Your task to perform on an android device: Go to Wikipedia Image 0: 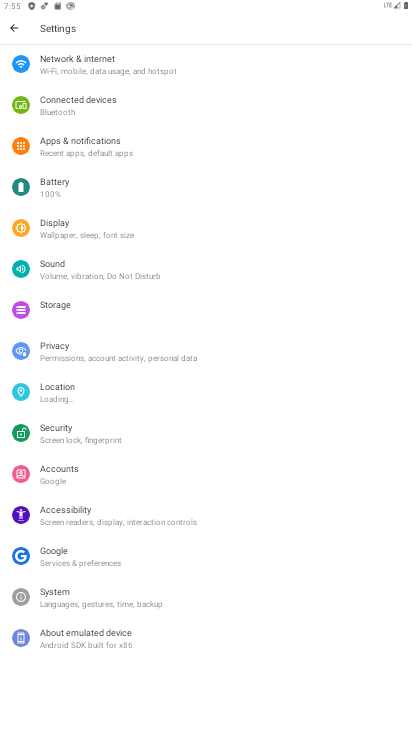
Step 0: drag from (370, 658) to (403, 198)
Your task to perform on an android device: Go to Wikipedia Image 1: 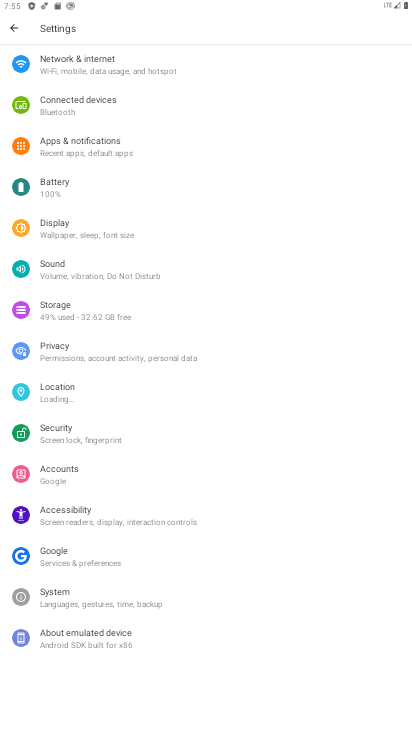
Step 1: press home button
Your task to perform on an android device: Go to Wikipedia Image 2: 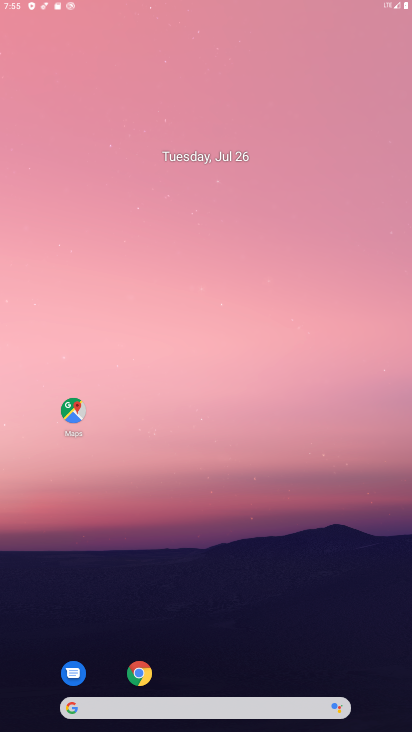
Step 2: drag from (353, 690) to (218, 101)
Your task to perform on an android device: Go to Wikipedia Image 3: 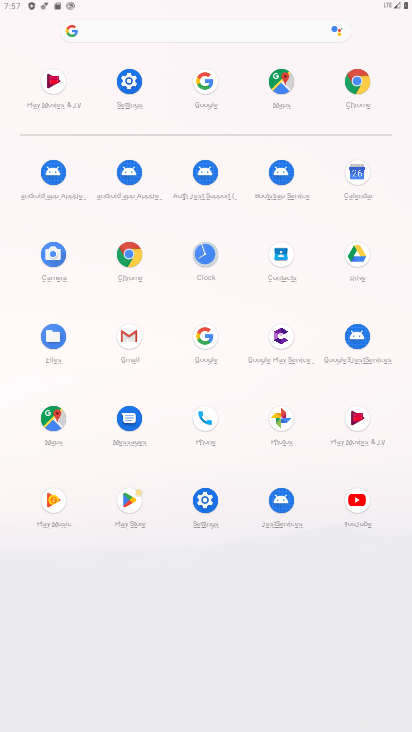
Step 3: click (208, 341)
Your task to perform on an android device: Go to Wikipedia Image 4: 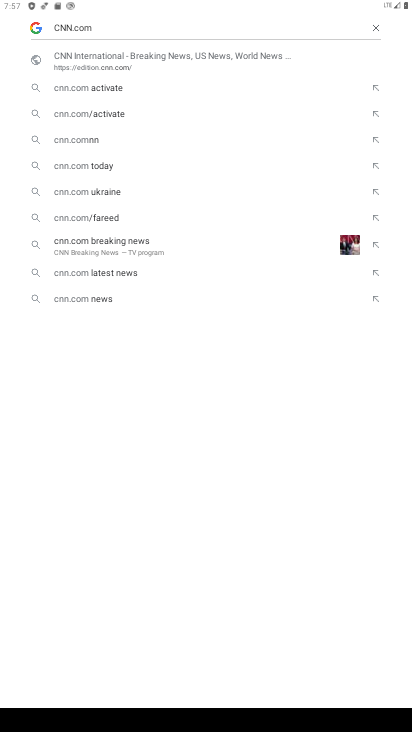
Step 4: click (117, 33)
Your task to perform on an android device: Go to Wikipedia Image 5: 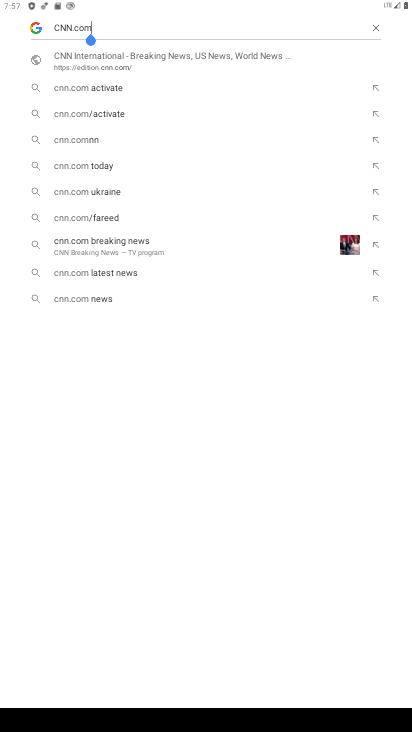
Step 5: click (374, 24)
Your task to perform on an android device: Go to Wikipedia Image 6: 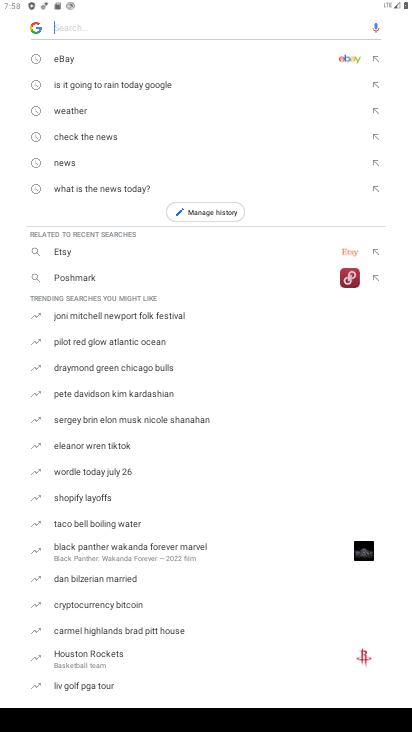
Step 6: type "Wikipedia"
Your task to perform on an android device: Go to Wikipedia Image 7: 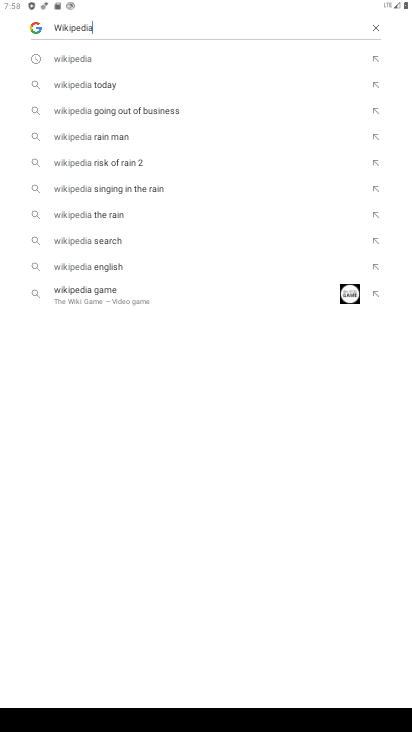
Step 7: click (69, 59)
Your task to perform on an android device: Go to Wikipedia Image 8: 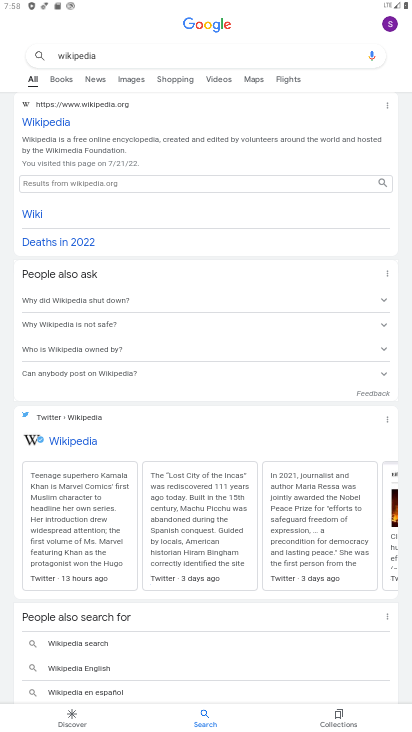
Step 8: task complete